Your task to perform on an android device: Show the shopping cart on target.com. Image 0: 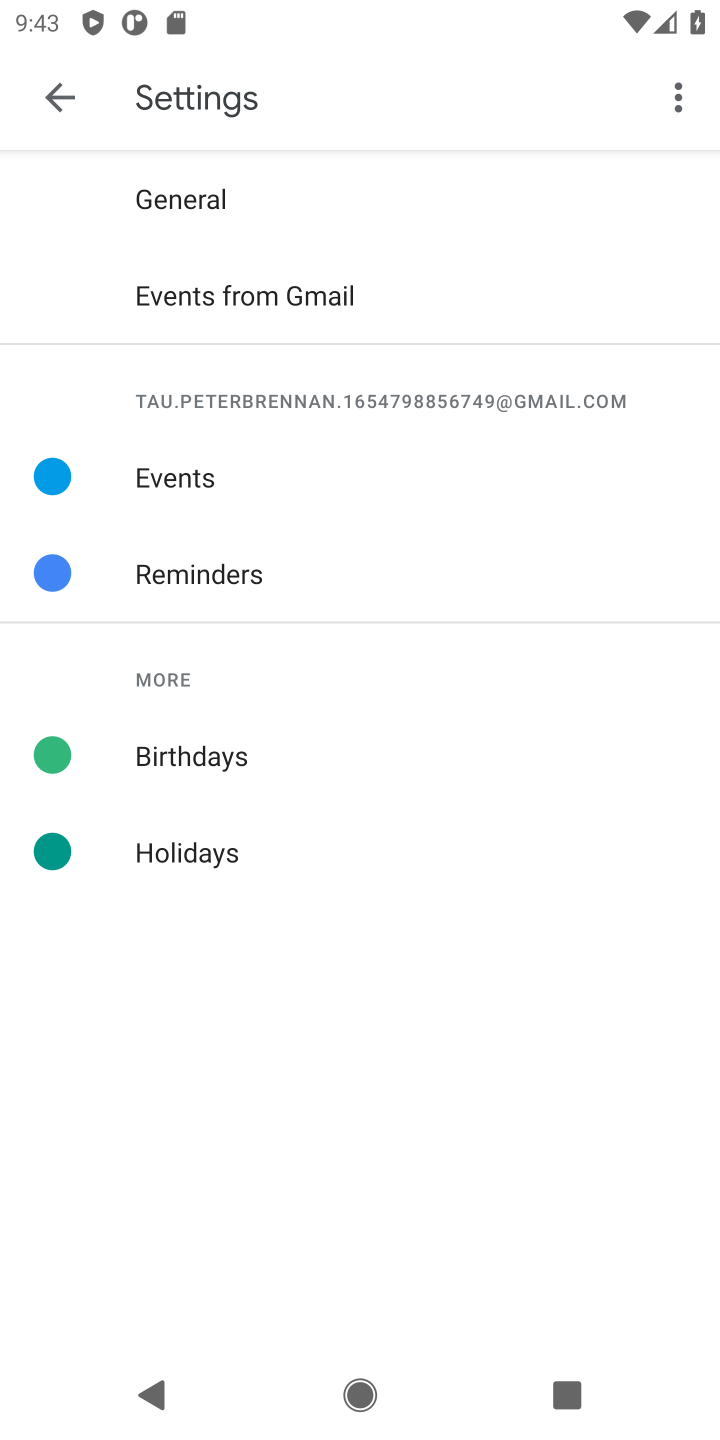
Step 0: press home button
Your task to perform on an android device: Show the shopping cart on target.com. Image 1: 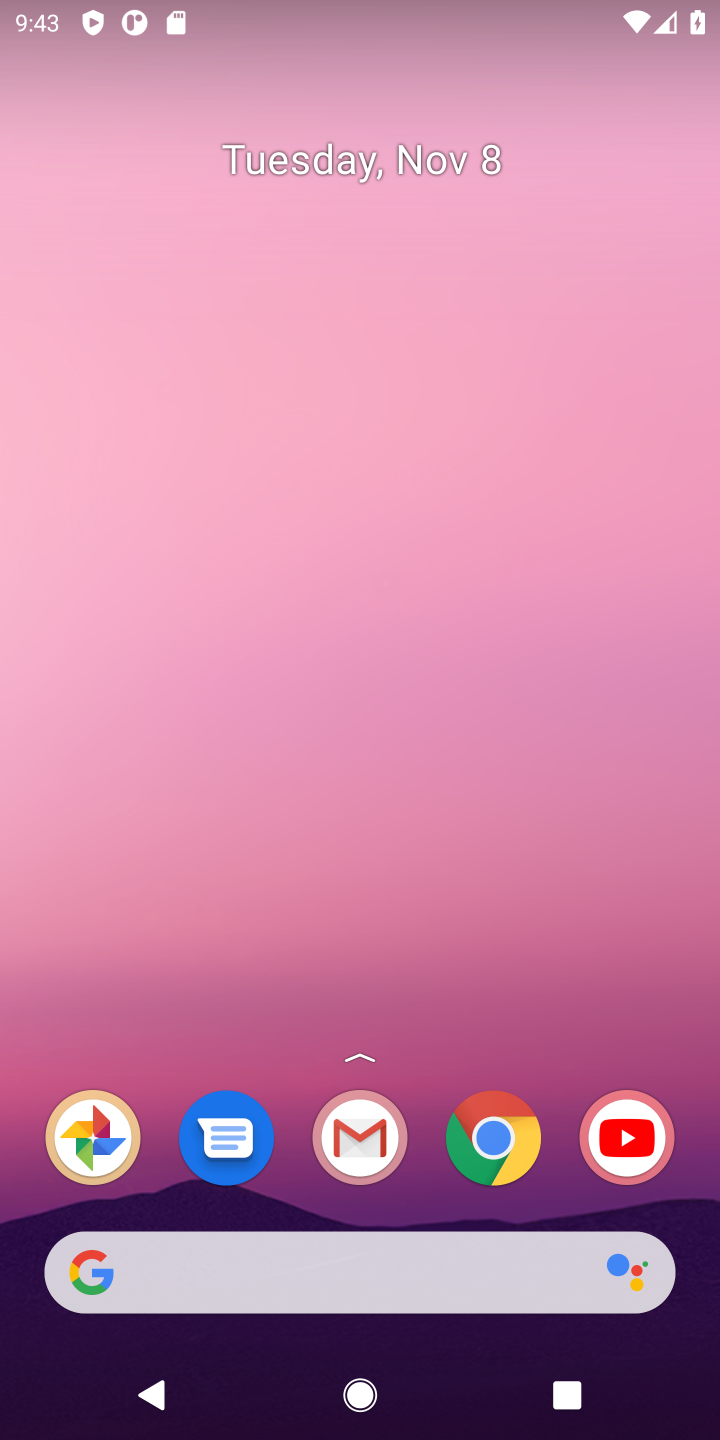
Step 1: click (531, 1069)
Your task to perform on an android device: Show the shopping cart on target.com. Image 2: 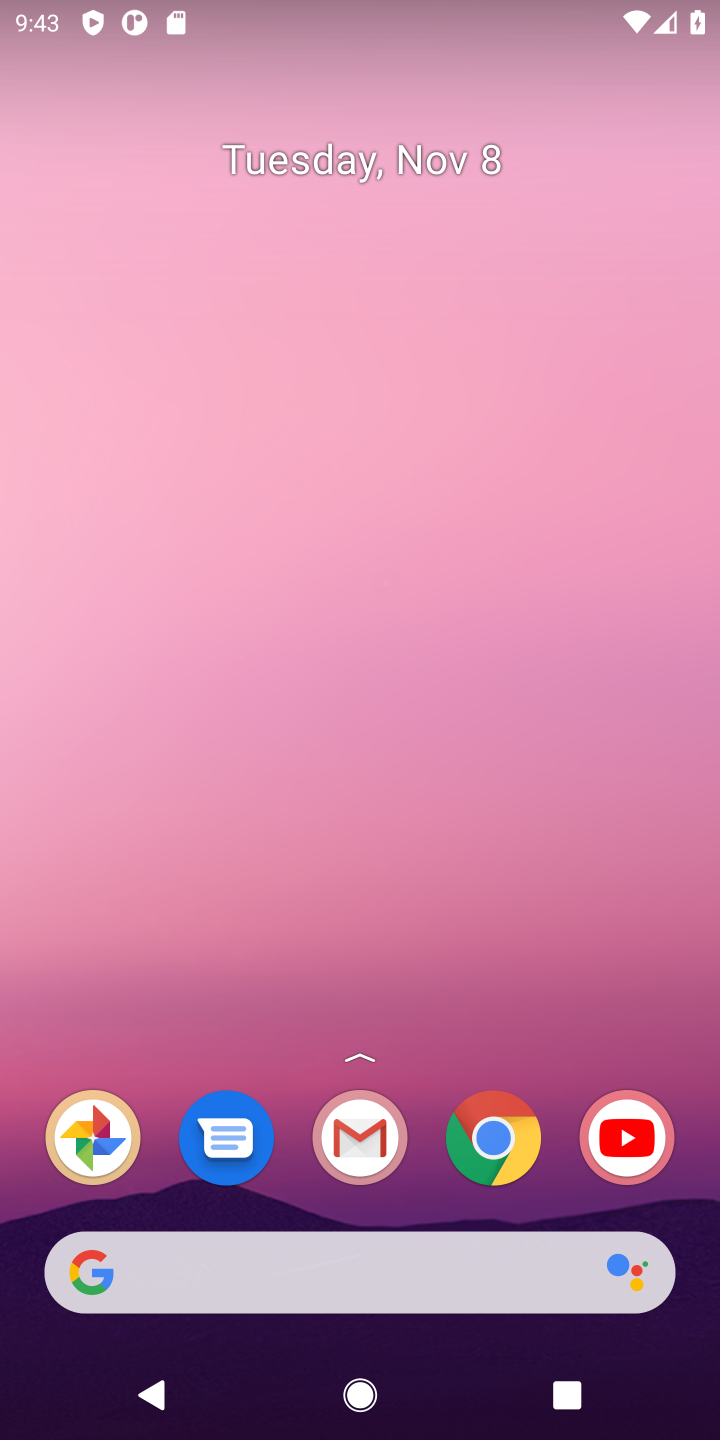
Step 2: click (491, 1133)
Your task to perform on an android device: Show the shopping cart on target.com. Image 3: 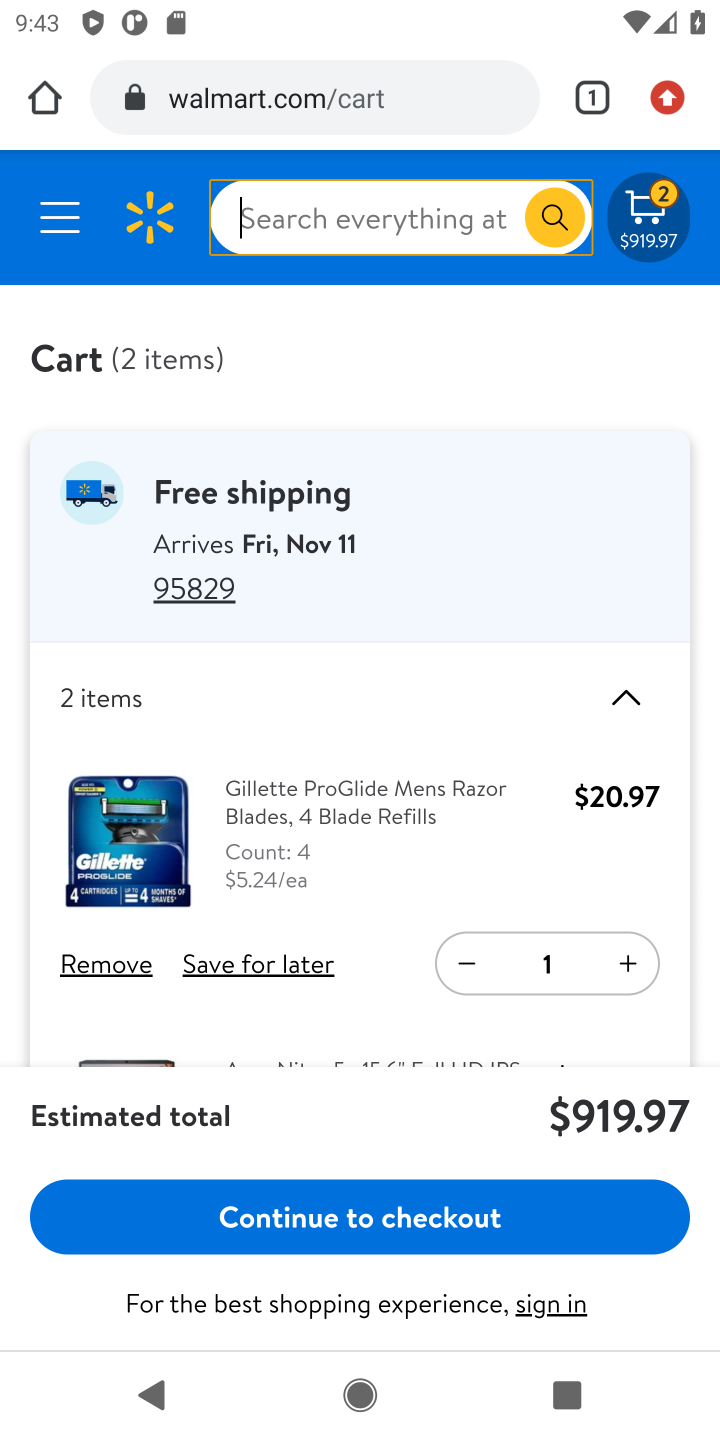
Step 3: click (382, 82)
Your task to perform on an android device: Show the shopping cart on target.com. Image 4: 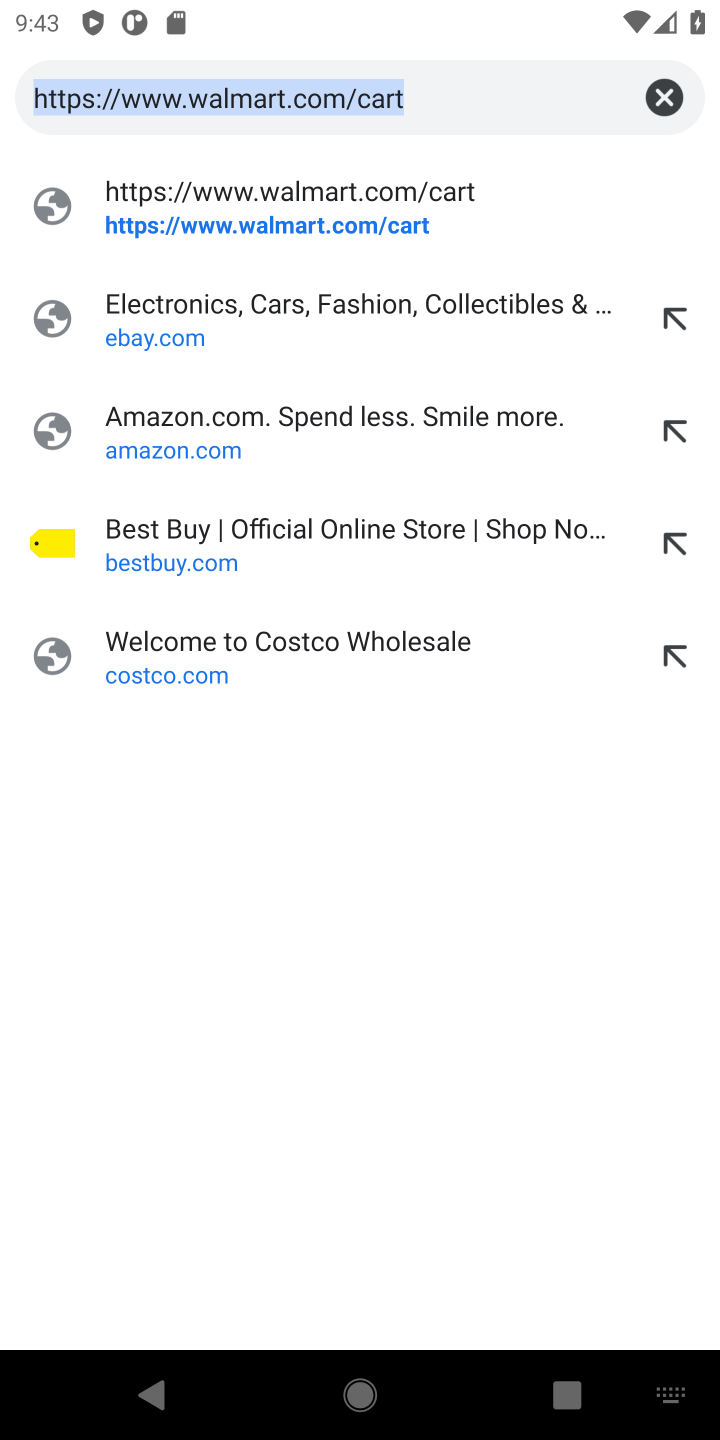
Step 4: click (672, 104)
Your task to perform on an android device: Show the shopping cart on target.com. Image 5: 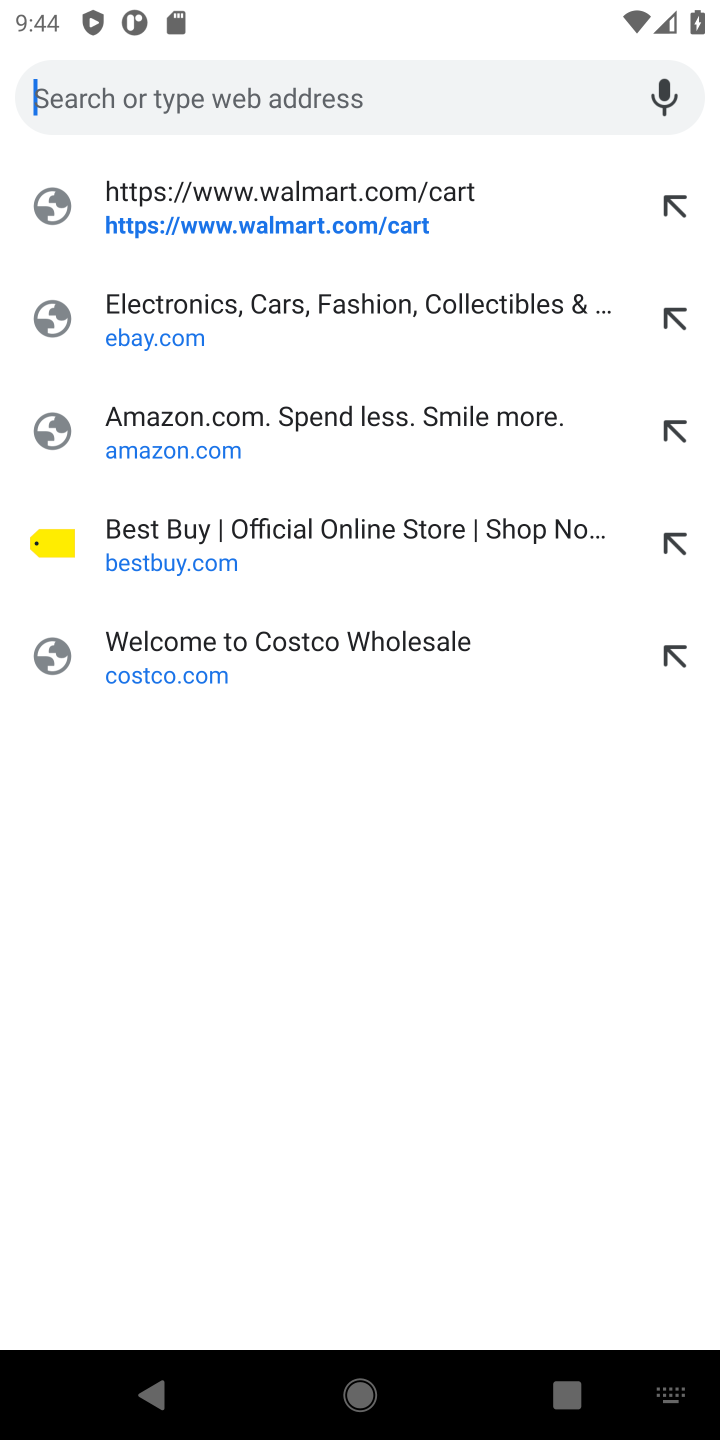
Step 5: type "target.com"
Your task to perform on an android device: Show the shopping cart on target.com. Image 6: 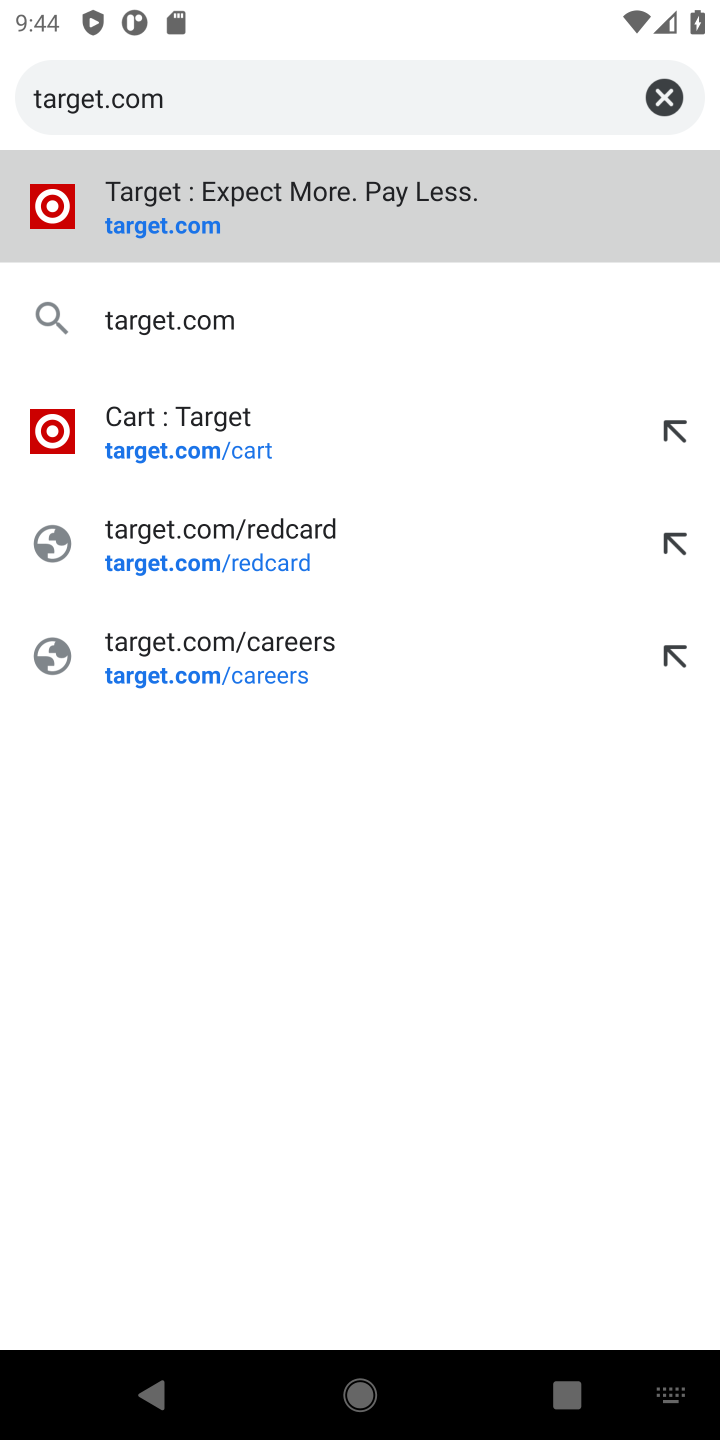
Step 6: press enter
Your task to perform on an android device: Show the shopping cart on target.com. Image 7: 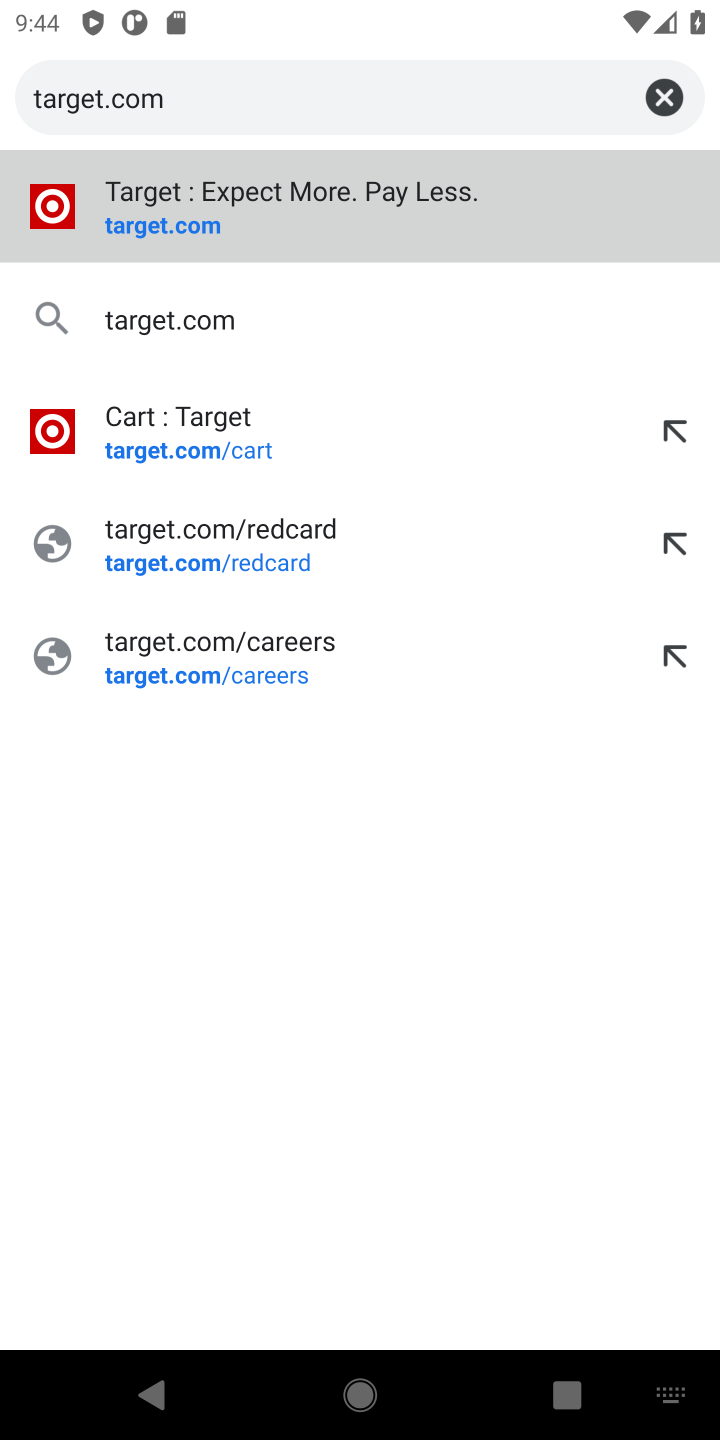
Step 7: click (241, 92)
Your task to perform on an android device: Show the shopping cart on target.com. Image 8: 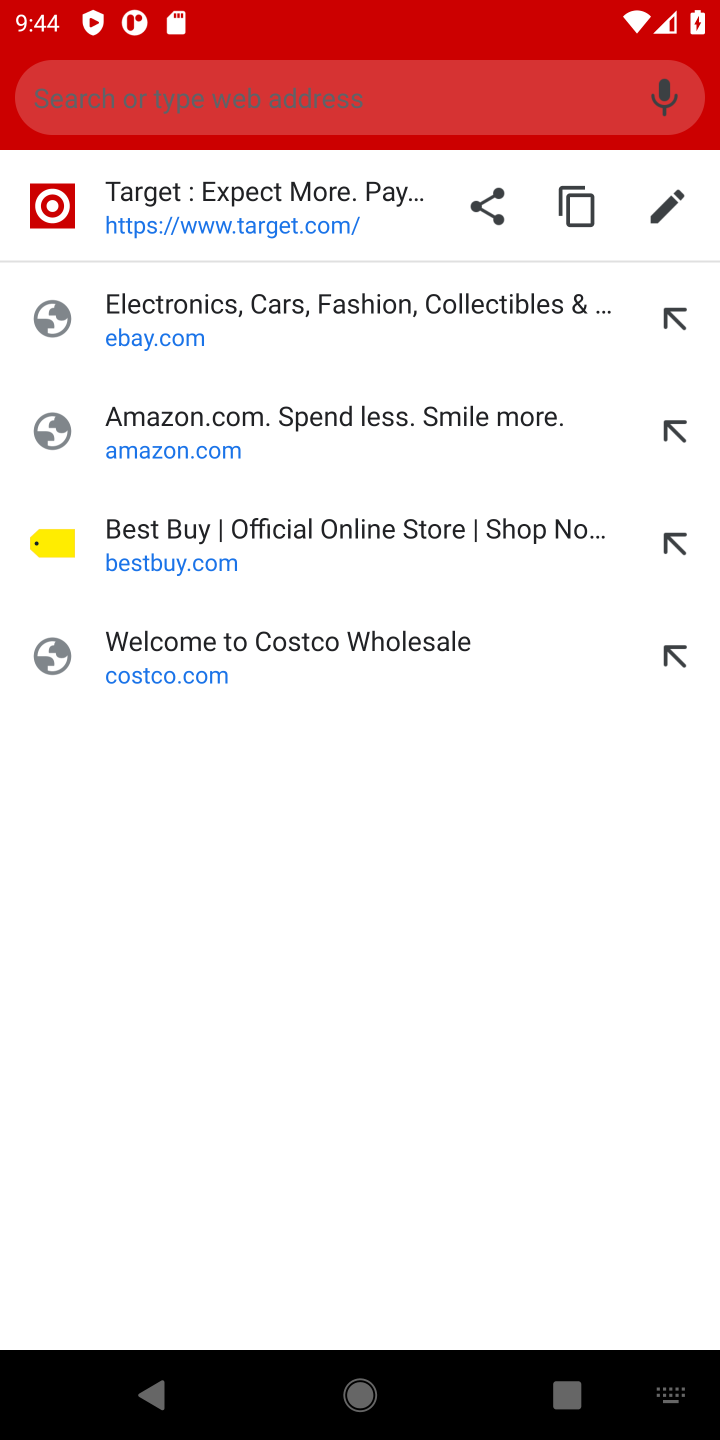
Step 8: click (138, 193)
Your task to perform on an android device: Show the shopping cart on target.com. Image 9: 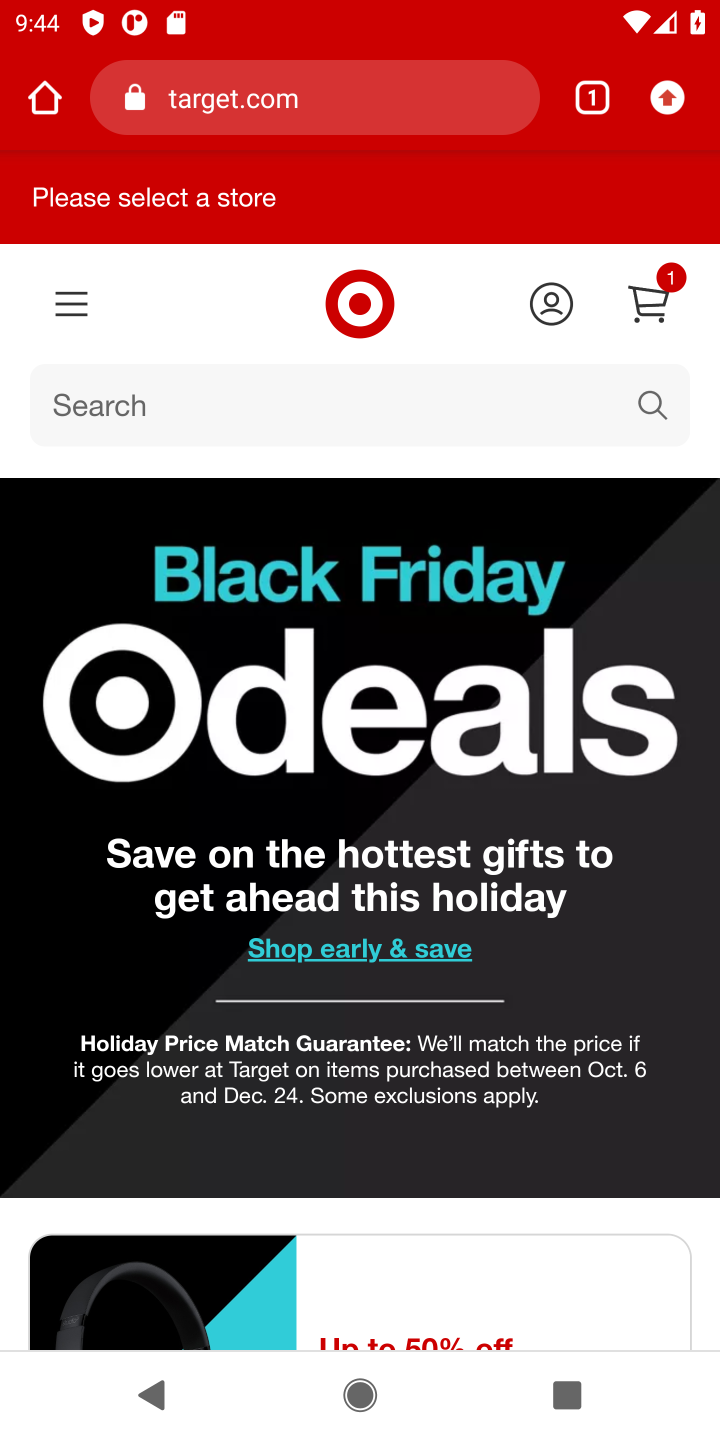
Step 9: click (645, 296)
Your task to perform on an android device: Show the shopping cart on target.com. Image 10: 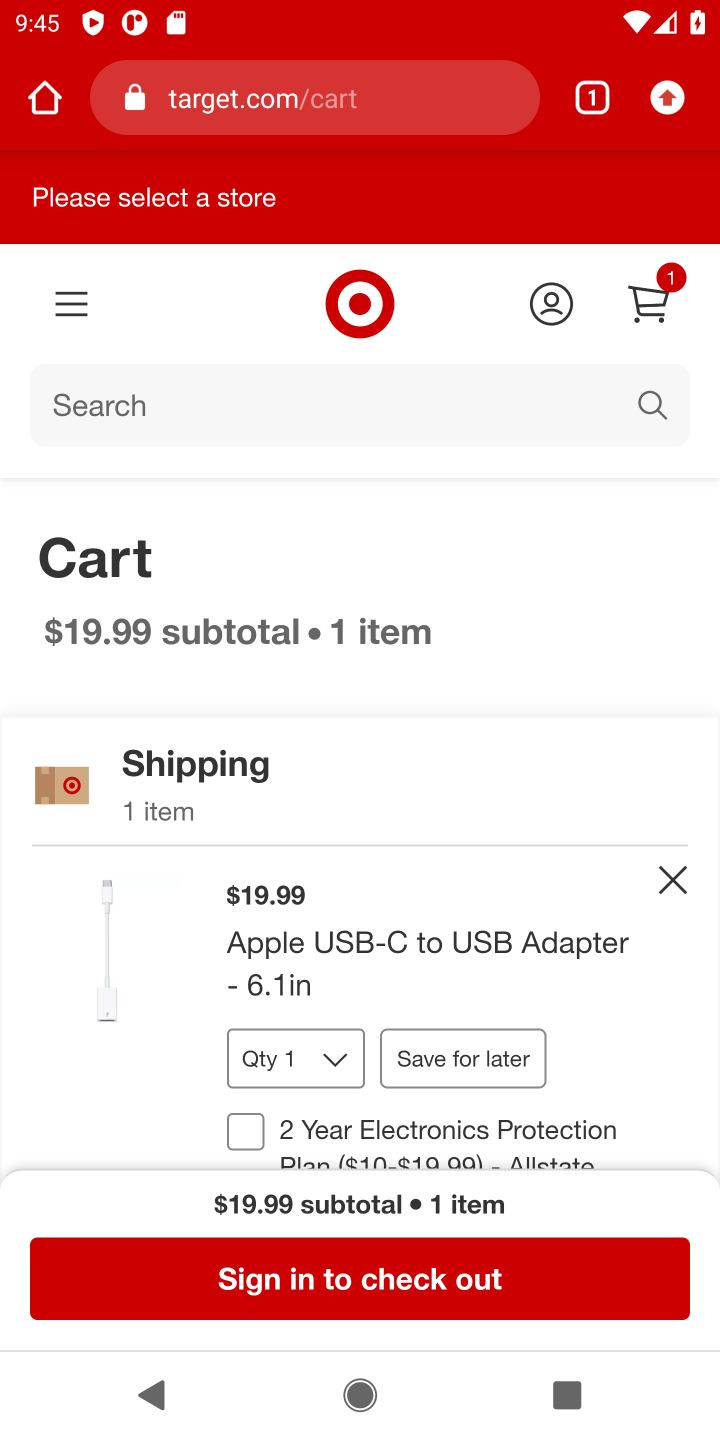
Step 10: task complete